Your task to perform on an android device: What is the recent news? Image 0: 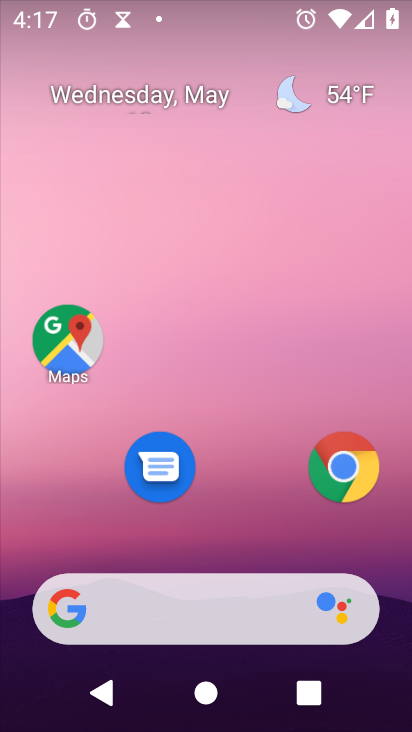
Step 0: click (360, 477)
Your task to perform on an android device: What is the recent news? Image 1: 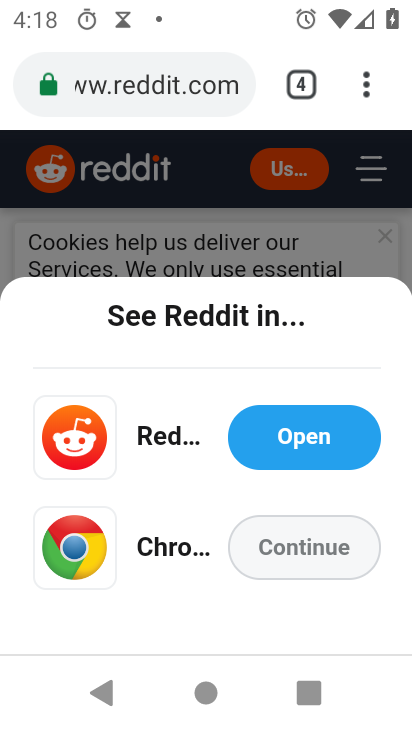
Step 1: click (149, 77)
Your task to perform on an android device: What is the recent news? Image 2: 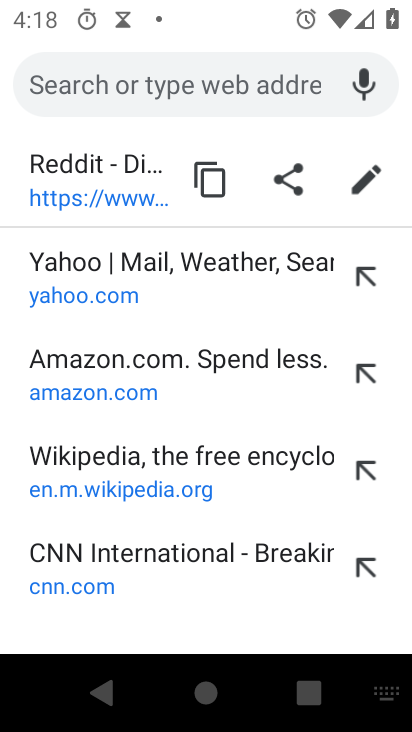
Step 2: type "What is the recent news?"
Your task to perform on an android device: What is the recent news? Image 3: 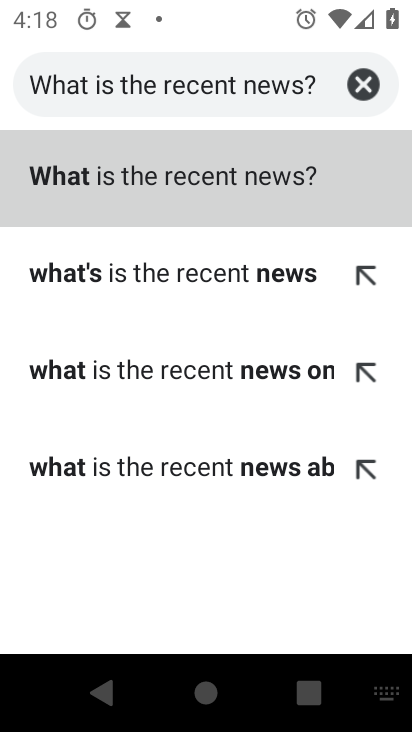
Step 3: click (278, 182)
Your task to perform on an android device: What is the recent news? Image 4: 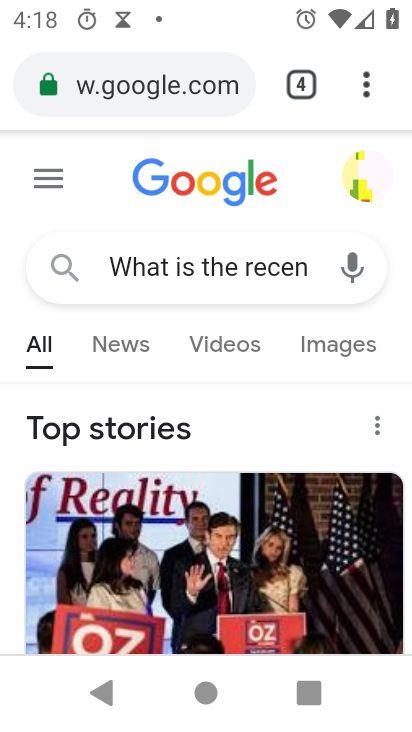
Step 4: task complete